Your task to perform on an android device: move a message to another label in the gmail app Image 0: 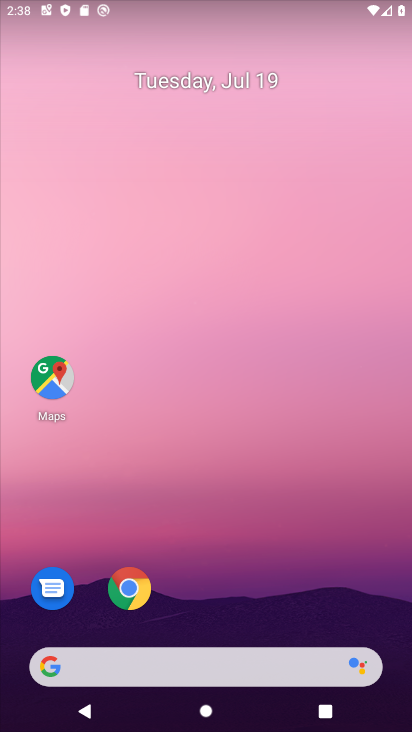
Step 0: drag from (164, 616) to (189, 11)
Your task to perform on an android device: move a message to another label in the gmail app Image 1: 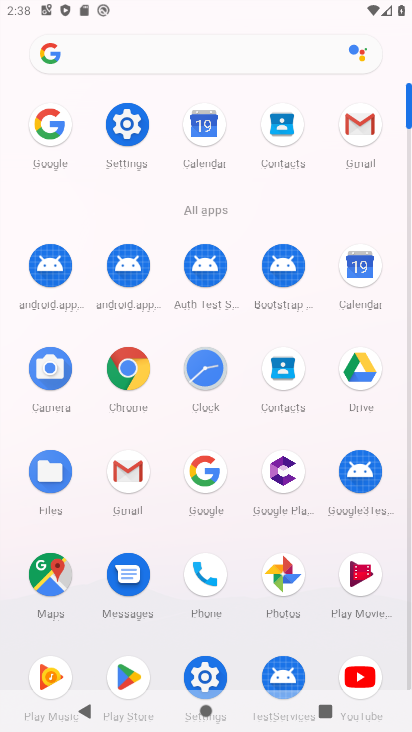
Step 1: click (357, 131)
Your task to perform on an android device: move a message to another label in the gmail app Image 2: 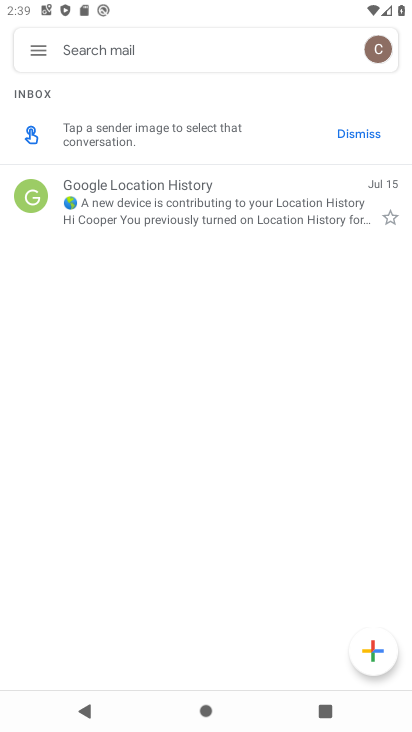
Step 2: click (169, 210)
Your task to perform on an android device: move a message to another label in the gmail app Image 3: 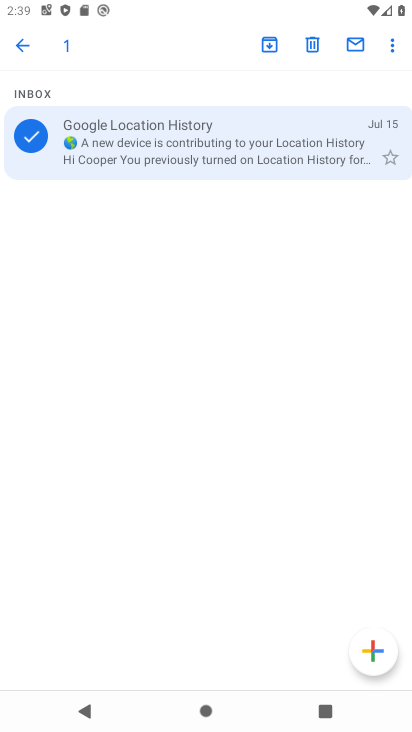
Step 3: click (397, 48)
Your task to perform on an android device: move a message to another label in the gmail app Image 4: 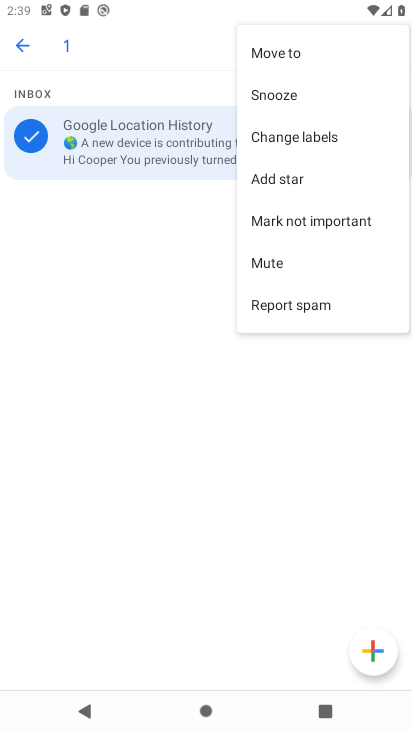
Step 4: click (333, 48)
Your task to perform on an android device: move a message to another label in the gmail app Image 5: 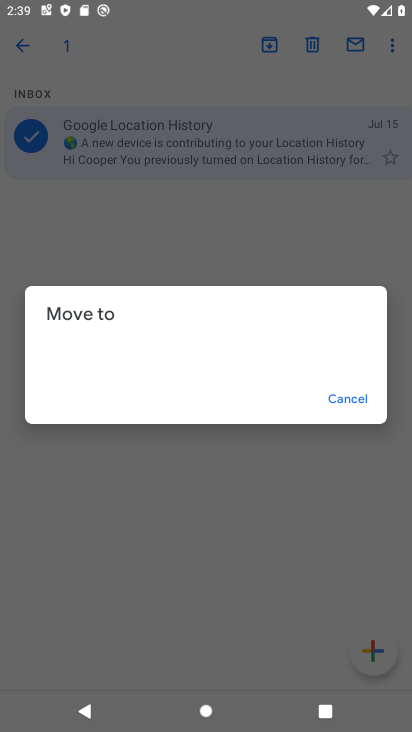
Step 5: click (356, 402)
Your task to perform on an android device: move a message to another label in the gmail app Image 6: 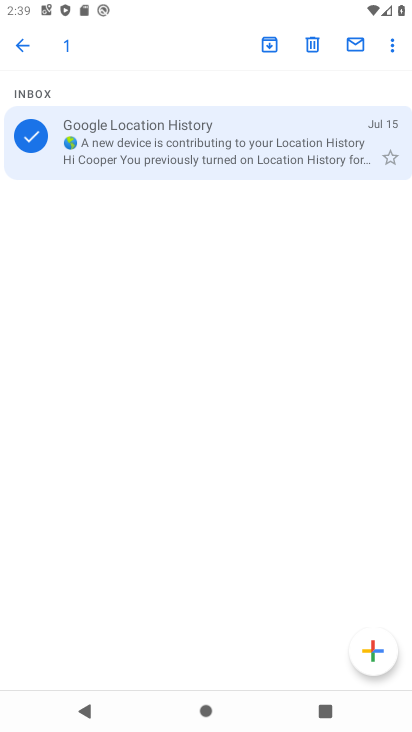
Step 6: click (394, 44)
Your task to perform on an android device: move a message to another label in the gmail app Image 7: 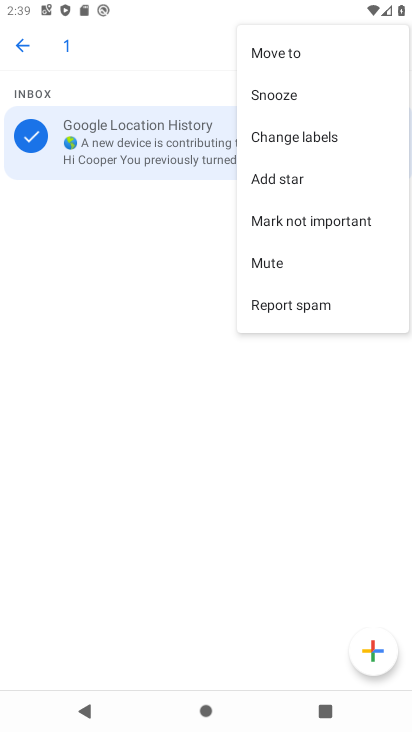
Step 7: click (290, 138)
Your task to perform on an android device: move a message to another label in the gmail app Image 8: 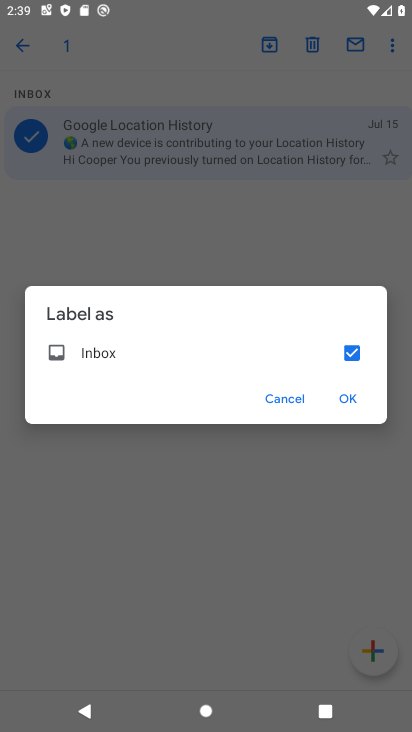
Step 8: click (344, 358)
Your task to perform on an android device: move a message to another label in the gmail app Image 9: 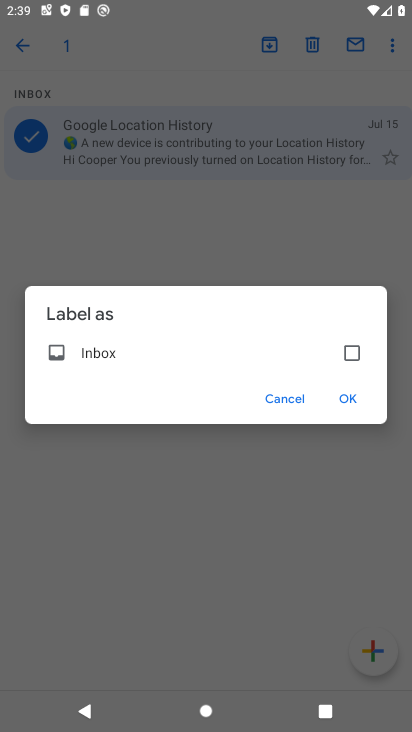
Step 9: click (349, 403)
Your task to perform on an android device: move a message to another label in the gmail app Image 10: 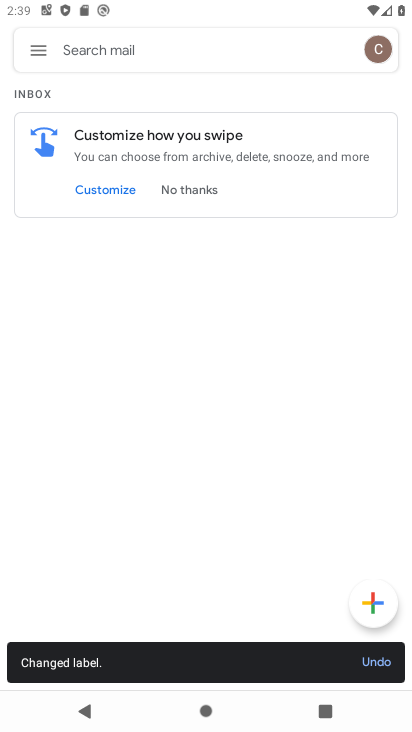
Step 10: task complete